Your task to perform on an android device: Open CNN.com Image 0: 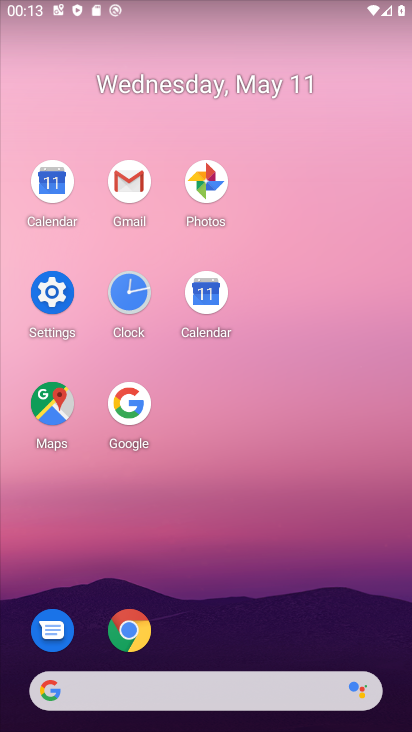
Step 0: click (140, 627)
Your task to perform on an android device: Open CNN.com Image 1: 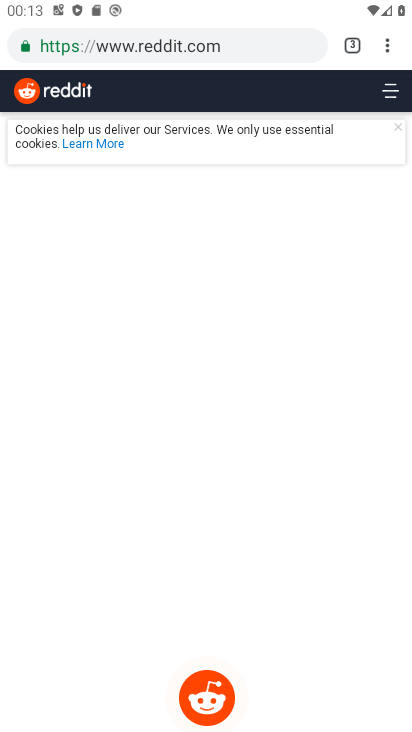
Step 1: click (351, 50)
Your task to perform on an android device: Open CNN.com Image 2: 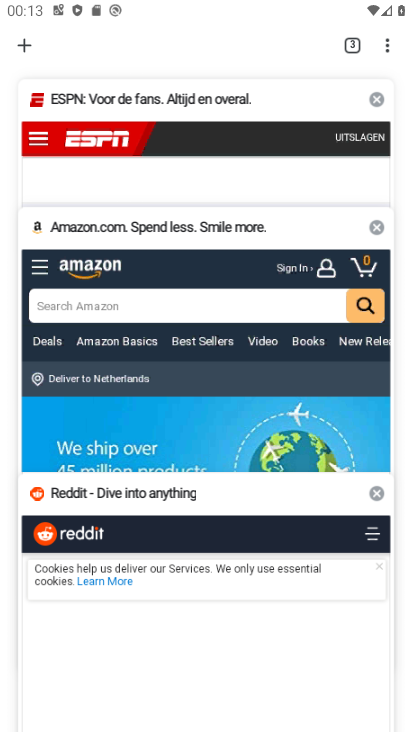
Step 2: click (17, 42)
Your task to perform on an android device: Open CNN.com Image 3: 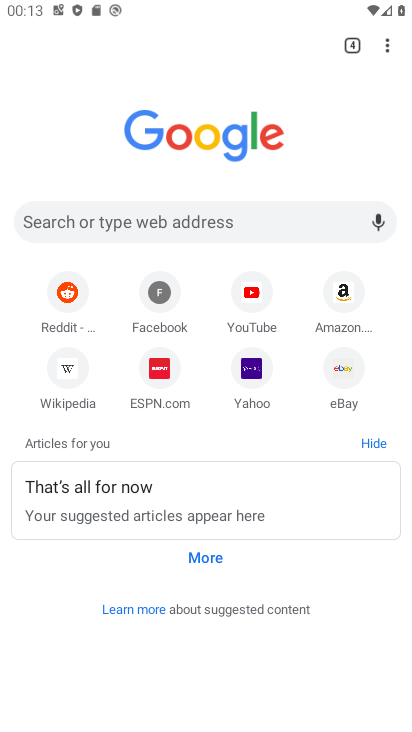
Step 3: click (251, 215)
Your task to perform on an android device: Open CNN.com Image 4: 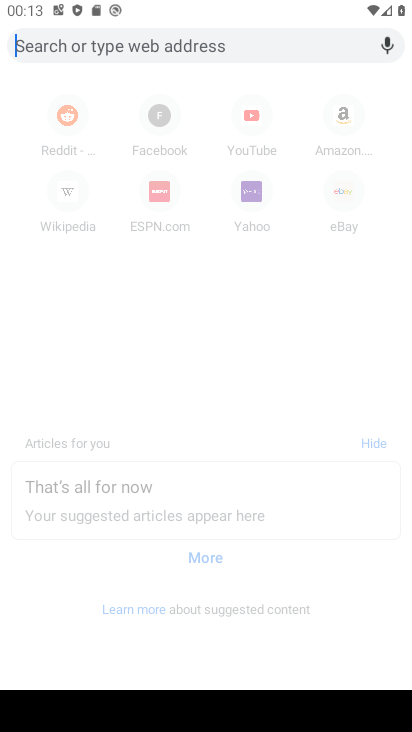
Step 4: type "cnn"
Your task to perform on an android device: Open CNN.com Image 5: 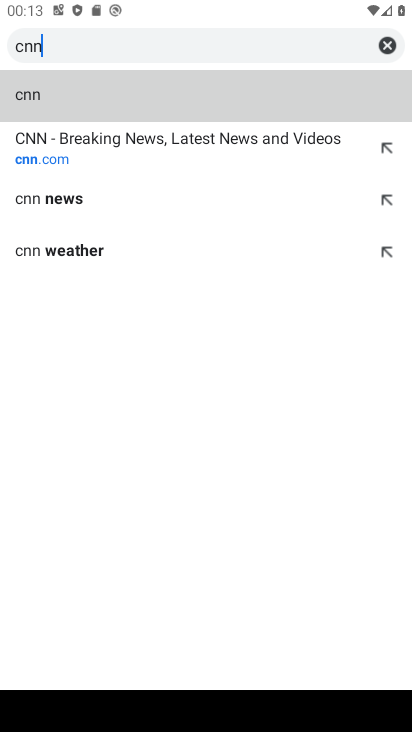
Step 5: click (126, 160)
Your task to perform on an android device: Open CNN.com Image 6: 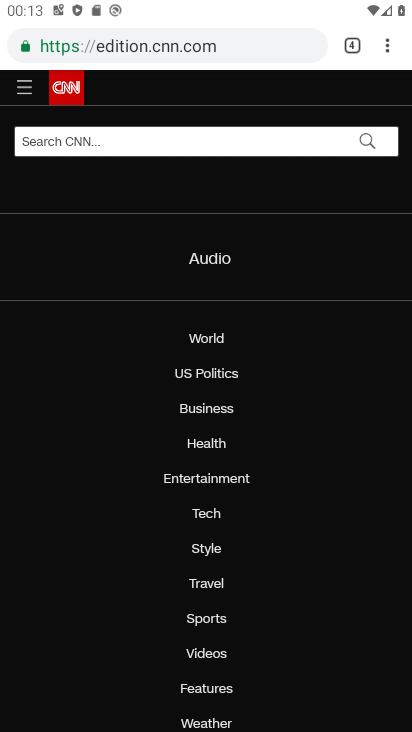
Step 6: task complete